Your task to perform on an android device: change alarm snooze length Image 0: 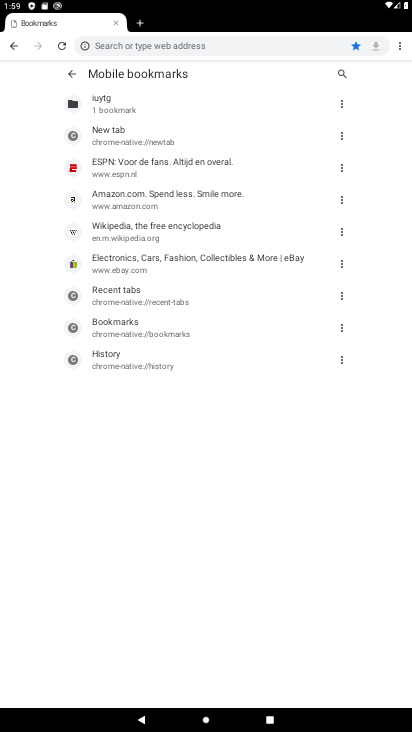
Step 0: press home button
Your task to perform on an android device: change alarm snooze length Image 1: 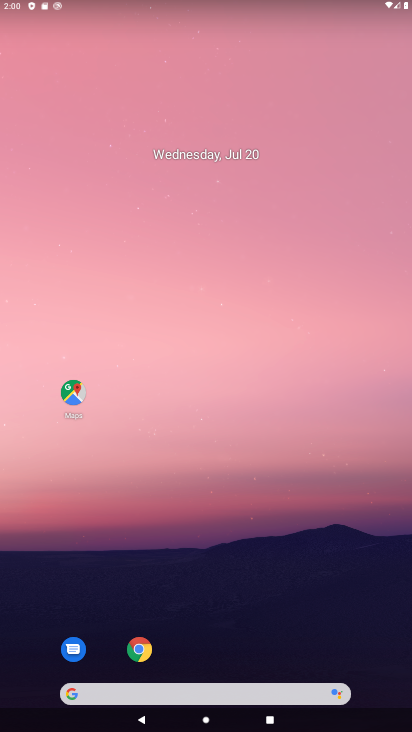
Step 1: drag from (261, 291) to (254, 56)
Your task to perform on an android device: change alarm snooze length Image 2: 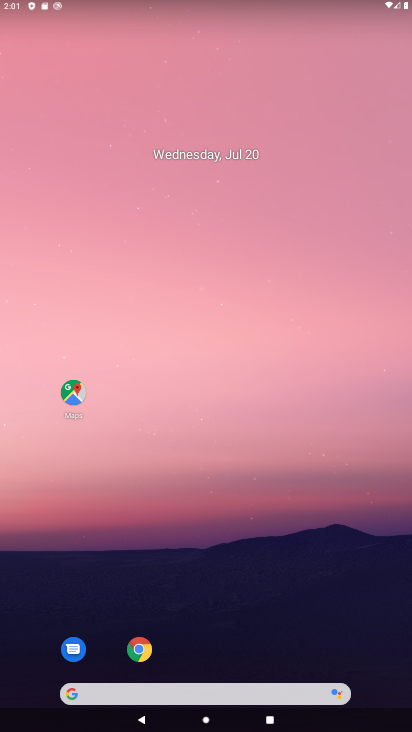
Step 2: drag from (260, 273) to (252, 2)
Your task to perform on an android device: change alarm snooze length Image 3: 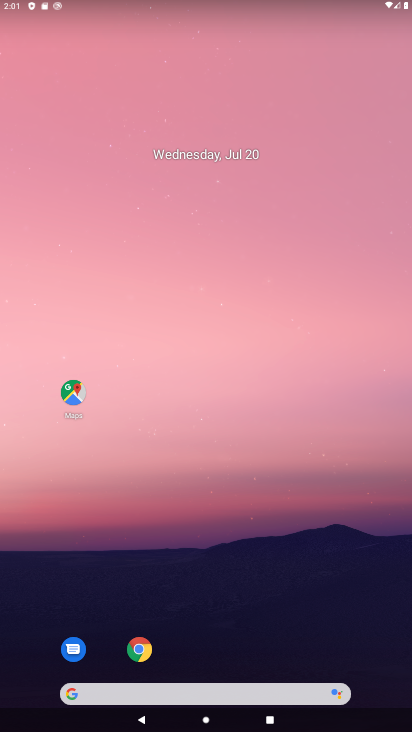
Step 3: drag from (284, 536) to (218, 41)
Your task to perform on an android device: change alarm snooze length Image 4: 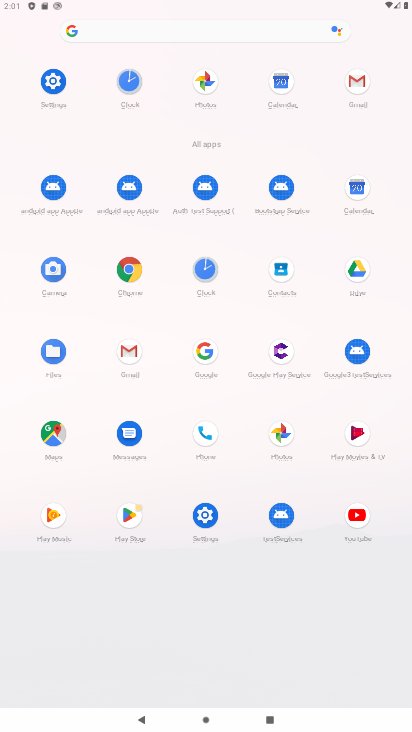
Step 4: click (209, 265)
Your task to perform on an android device: change alarm snooze length Image 5: 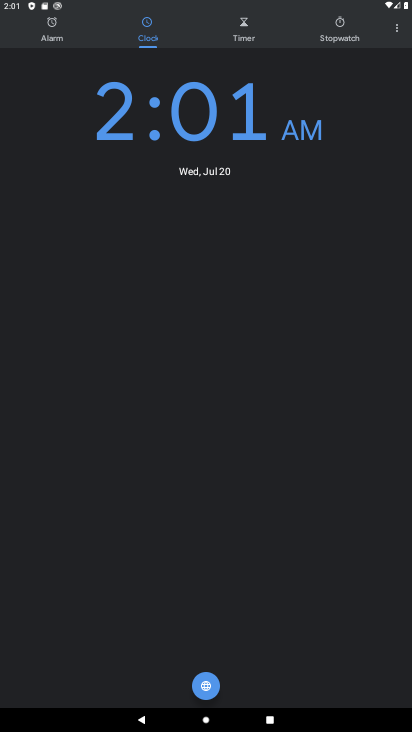
Step 5: click (398, 29)
Your task to perform on an android device: change alarm snooze length Image 6: 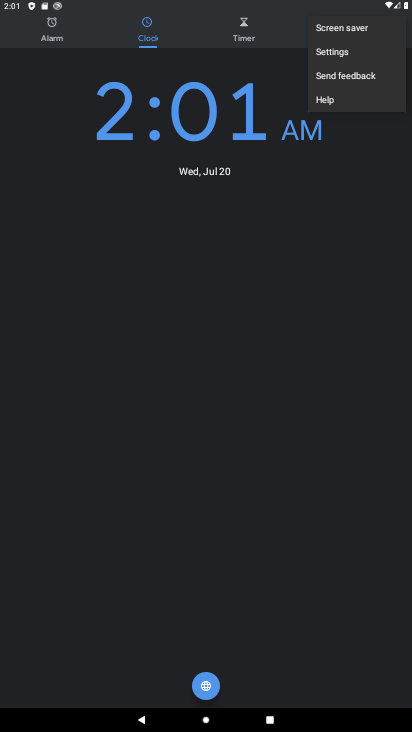
Step 6: click (334, 53)
Your task to perform on an android device: change alarm snooze length Image 7: 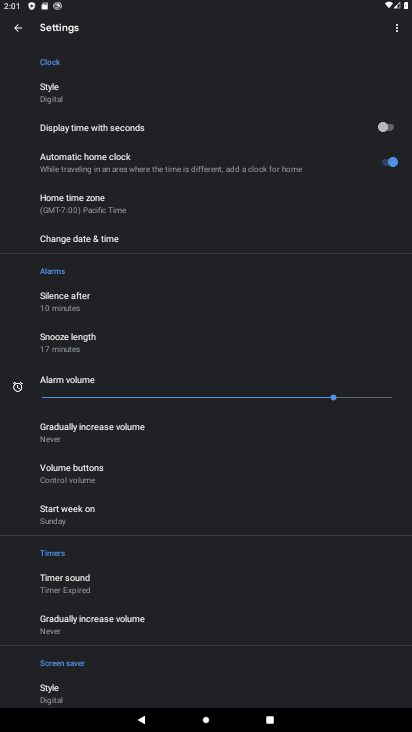
Step 7: task complete